Your task to perform on an android device: allow cookies in the chrome app Image 0: 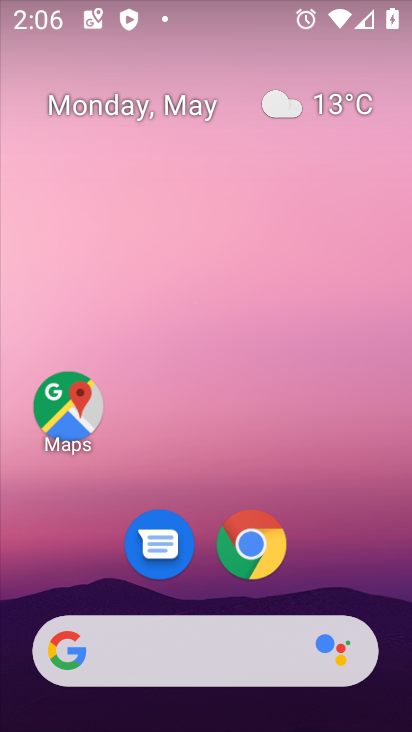
Step 0: click (255, 543)
Your task to perform on an android device: allow cookies in the chrome app Image 1: 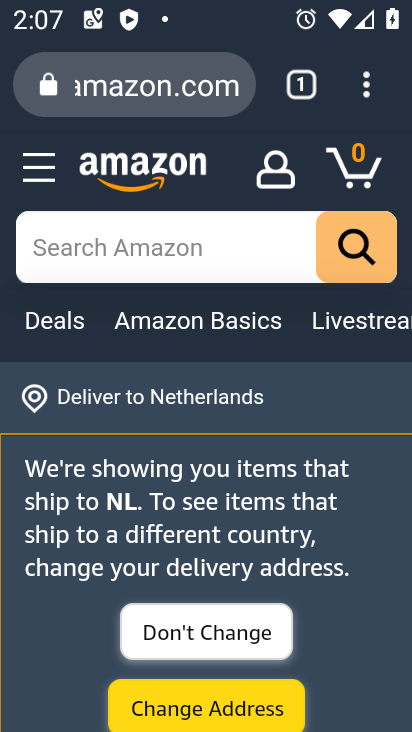
Step 1: click (363, 96)
Your task to perform on an android device: allow cookies in the chrome app Image 2: 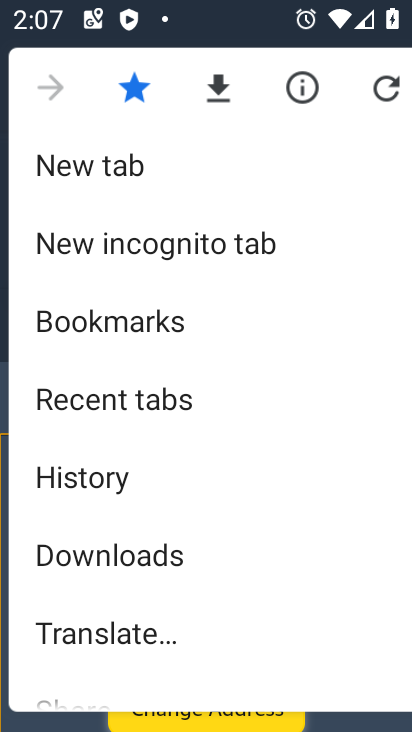
Step 2: drag from (215, 621) to (242, 206)
Your task to perform on an android device: allow cookies in the chrome app Image 3: 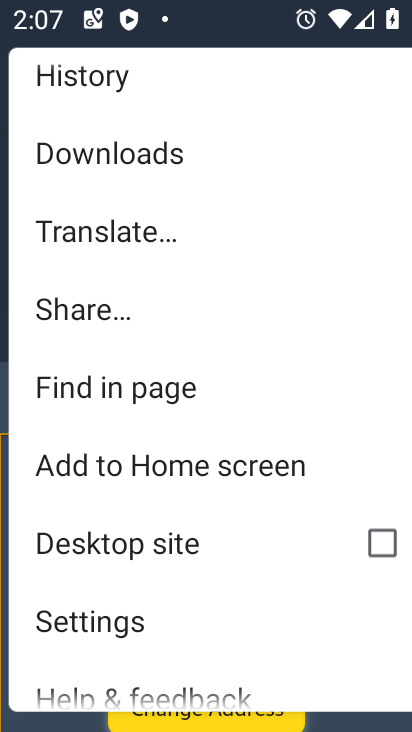
Step 3: drag from (230, 516) to (284, 198)
Your task to perform on an android device: allow cookies in the chrome app Image 4: 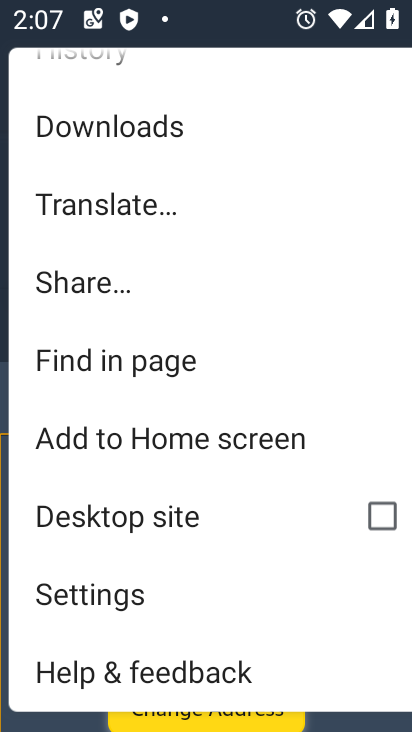
Step 4: click (91, 581)
Your task to perform on an android device: allow cookies in the chrome app Image 5: 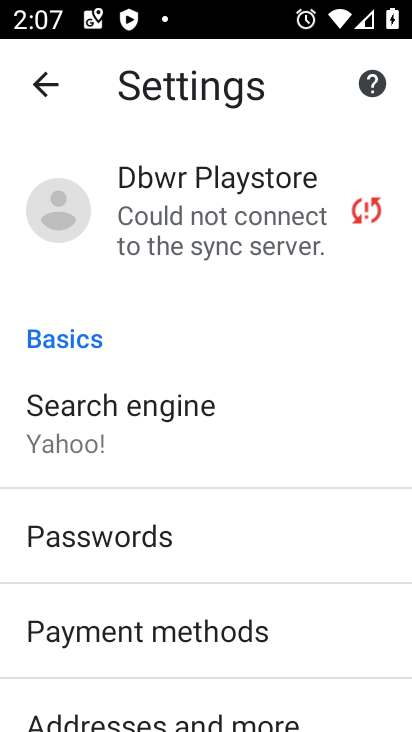
Step 5: drag from (327, 678) to (241, 286)
Your task to perform on an android device: allow cookies in the chrome app Image 6: 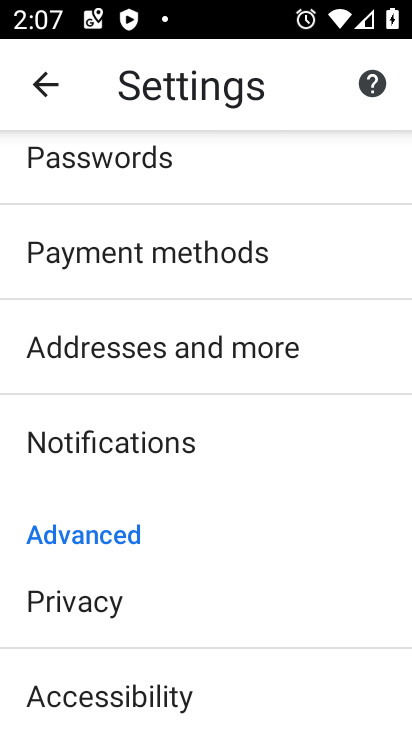
Step 6: drag from (249, 595) to (325, 249)
Your task to perform on an android device: allow cookies in the chrome app Image 7: 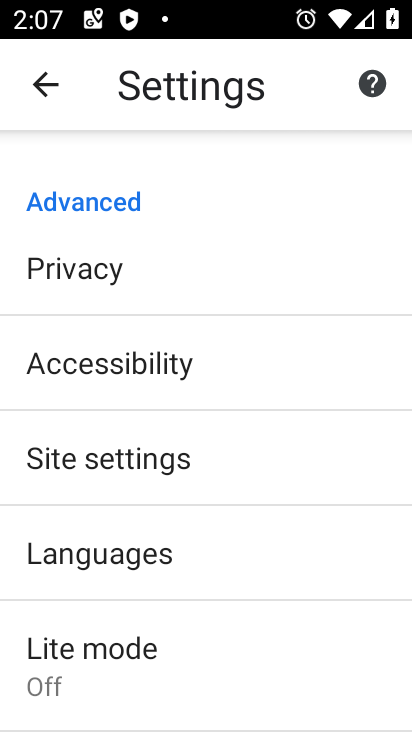
Step 7: click (98, 433)
Your task to perform on an android device: allow cookies in the chrome app Image 8: 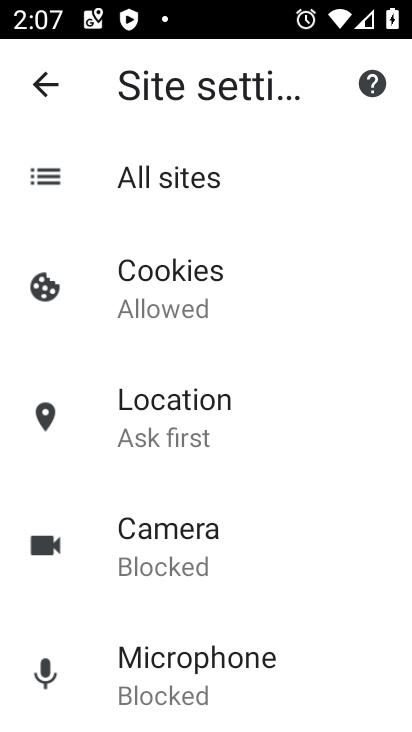
Step 8: click (165, 306)
Your task to perform on an android device: allow cookies in the chrome app Image 9: 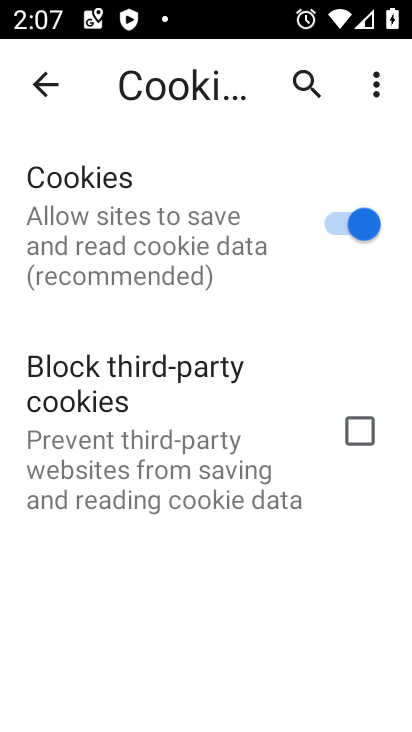
Step 9: task complete